Your task to perform on an android device: set an alarm Image 0: 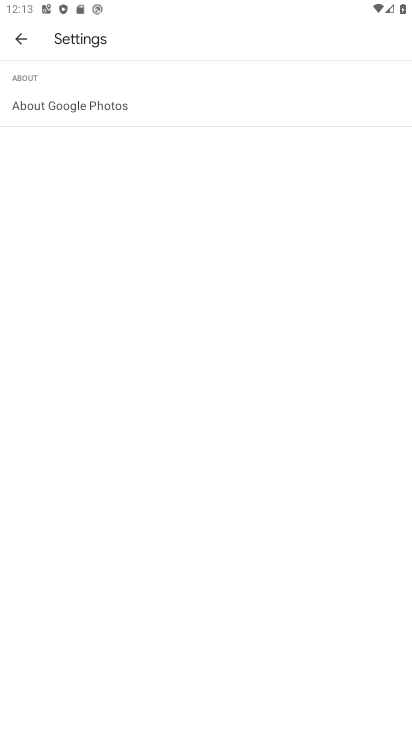
Step 0: press home button
Your task to perform on an android device: set an alarm Image 1: 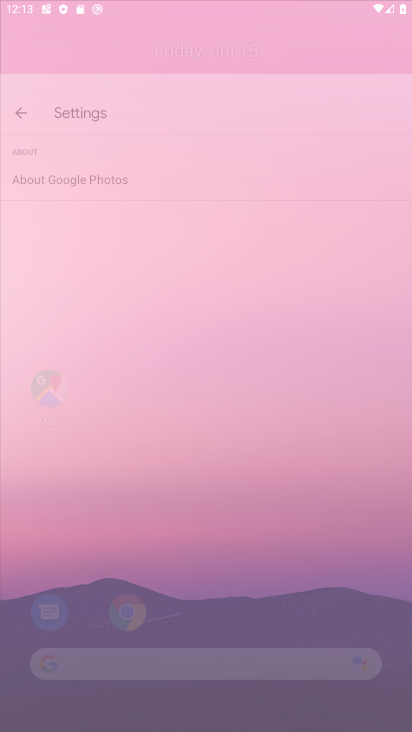
Step 1: drag from (374, 586) to (279, 63)
Your task to perform on an android device: set an alarm Image 2: 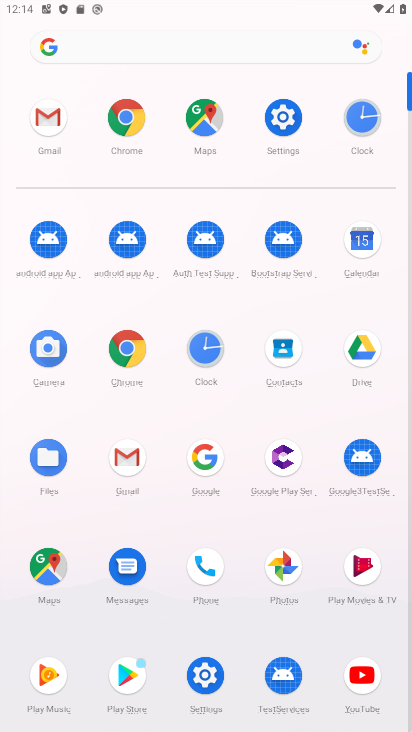
Step 2: click (211, 347)
Your task to perform on an android device: set an alarm Image 3: 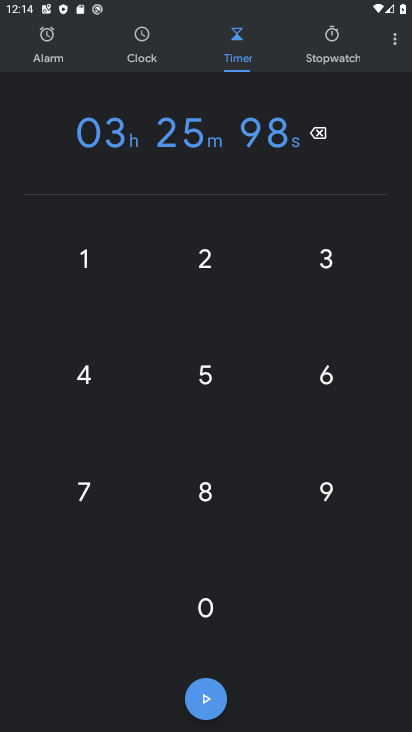
Step 3: click (48, 54)
Your task to perform on an android device: set an alarm Image 4: 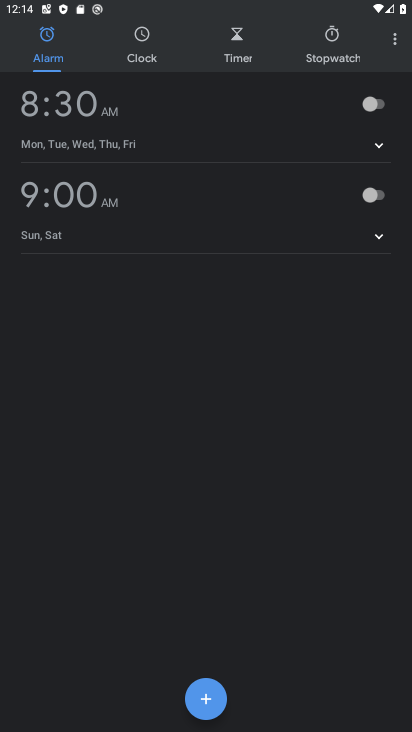
Step 4: click (386, 107)
Your task to perform on an android device: set an alarm Image 5: 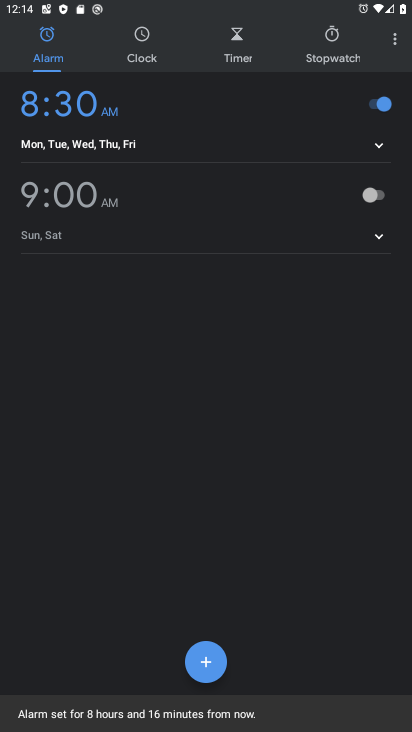
Step 5: task complete